Your task to perform on an android device: Search for seafood restaurants on Google Maps Image 0: 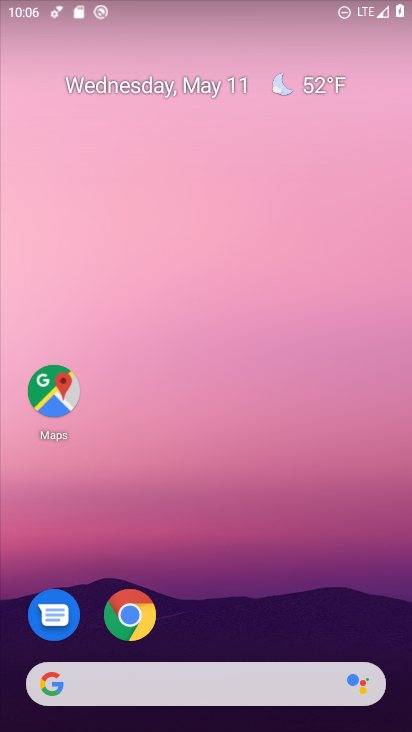
Step 0: click (54, 397)
Your task to perform on an android device: Search for seafood restaurants on Google Maps Image 1: 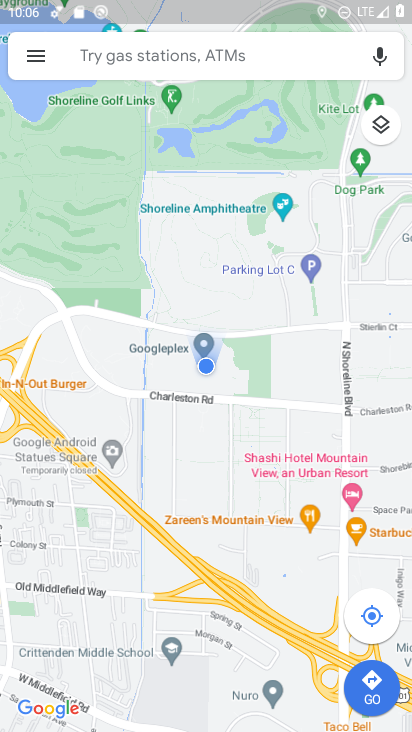
Step 1: click (126, 70)
Your task to perform on an android device: Search for seafood restaurants on Google Maps Image 2: 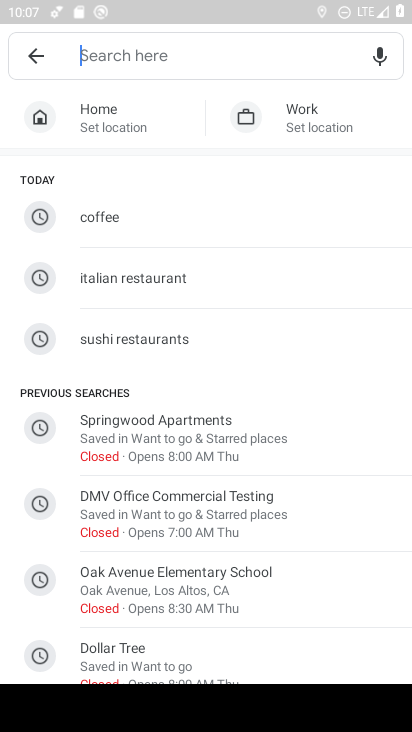
Step 2: type "seafood restaurants"
Your task to perform on an android device: Search for seafood restaurants on Google Maps Image 3: 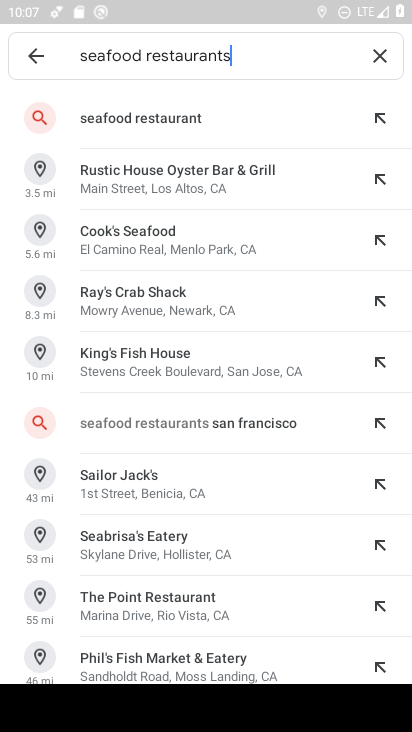
Step 3: click (185, 114)
Your task to perform on an android device: Search for seafood restaurants on Google Maps Image 4: 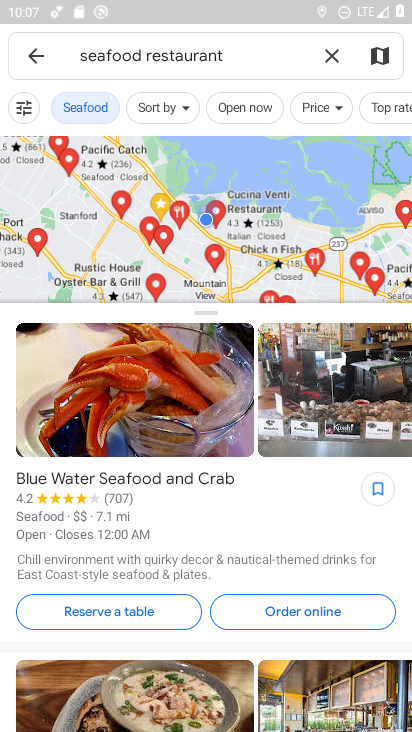
Step 4: task complete